Your task to perform on an android device: Open internet settings Image 0: 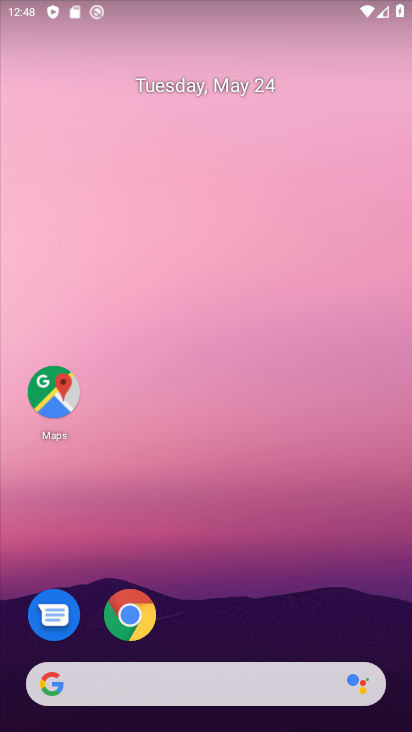
Step 0: press home button
Your task to perform on an android device: Open internet settings Image 1: 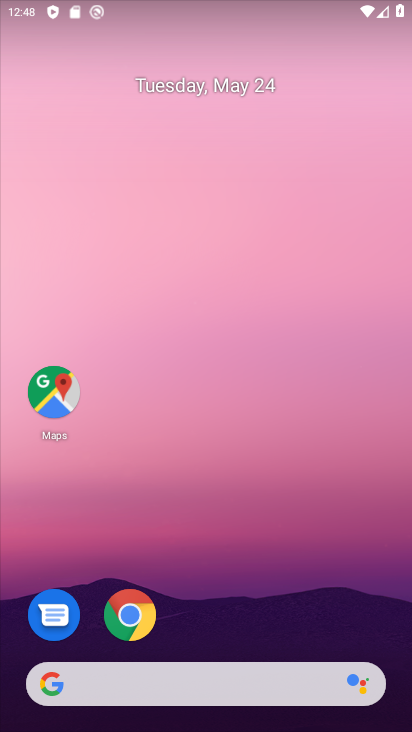
Step 1: drag from (202, 640) to (213, 64)
Your task to perform on an android device: Open internet settings Image 2: 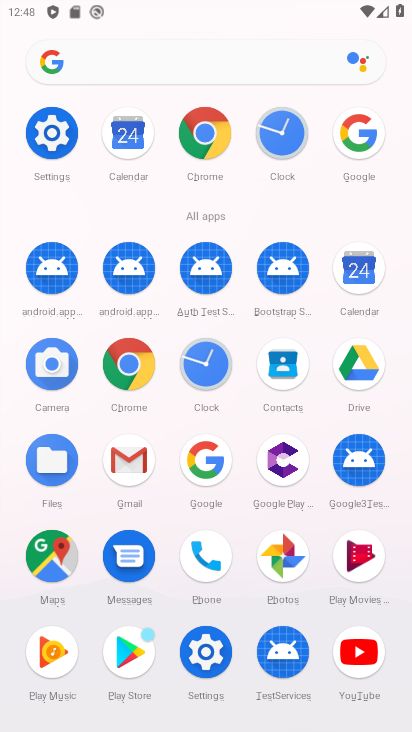
Step 2: click (47, 127)
Your task to perform on an android device: Open internet settings Image 3: 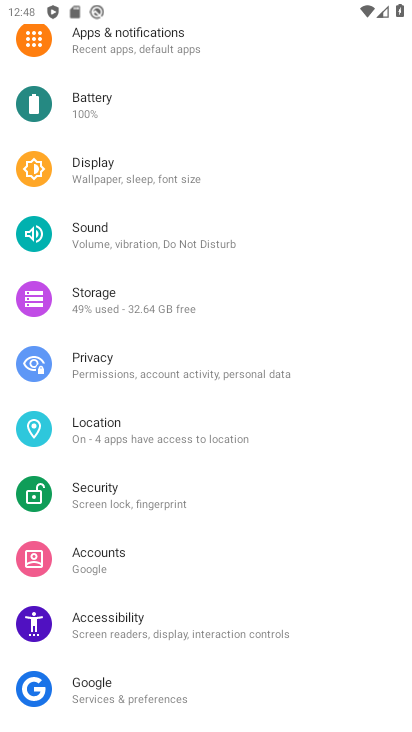
Step 3: drag from (128, 56) to (124, 629)
Your task to perform on an android device: Open internet settings Image 4: 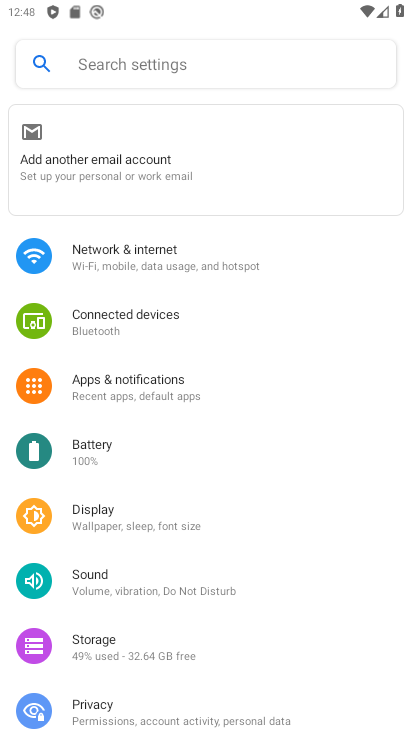
Step 4: click (185, 245)
Your task to perform on an android device: Open internet settings Image 5: 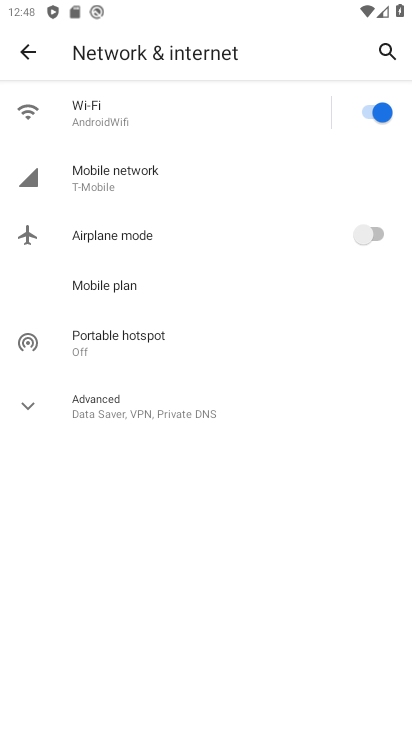
Step 5: click (34, 403)
Your task to perform on an android device: Open internet settings Image 6: 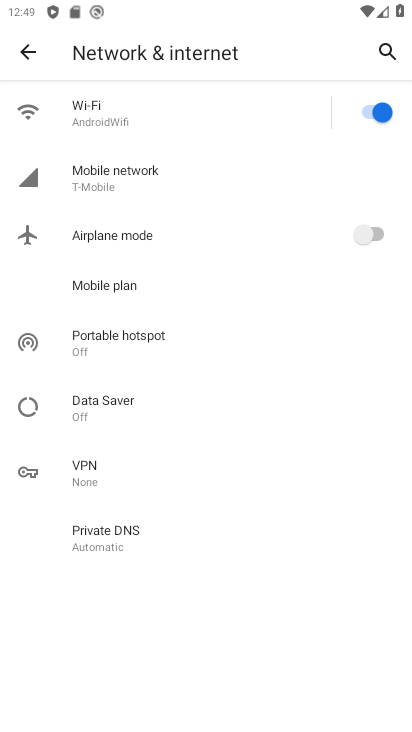
Step 6: task complete